Your task to perform on an android device: visit the assistant section in the google photos Image 0: 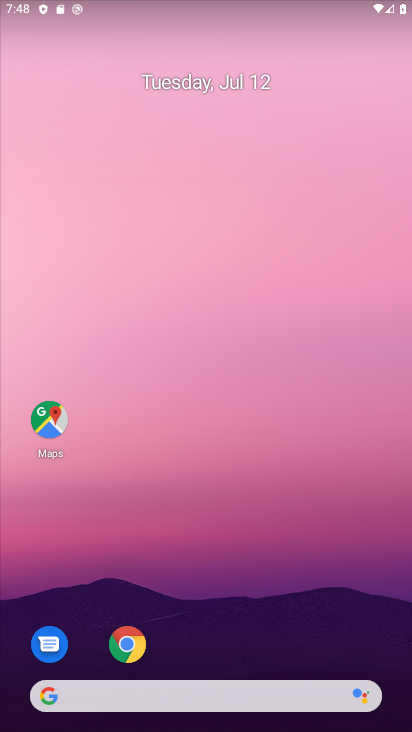
Step 0: press home button
Your task to perform on an android device: visit the assistant section in the google photos Image 1: 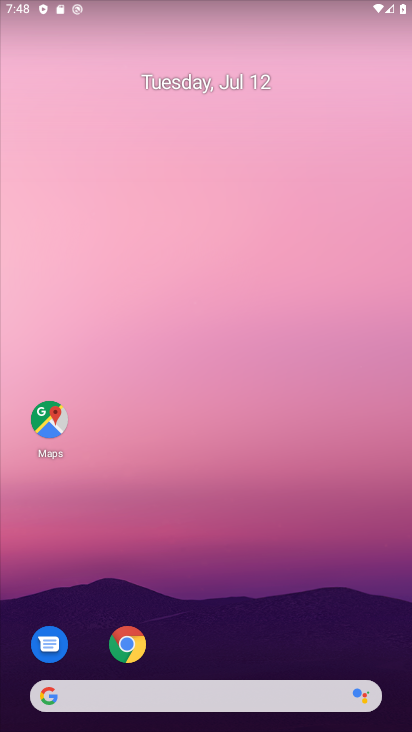
Step 1: drag from (249, 631) to (245, 117)
Your task to perform on an android device: visit the assistant section in the google photos Image 2: 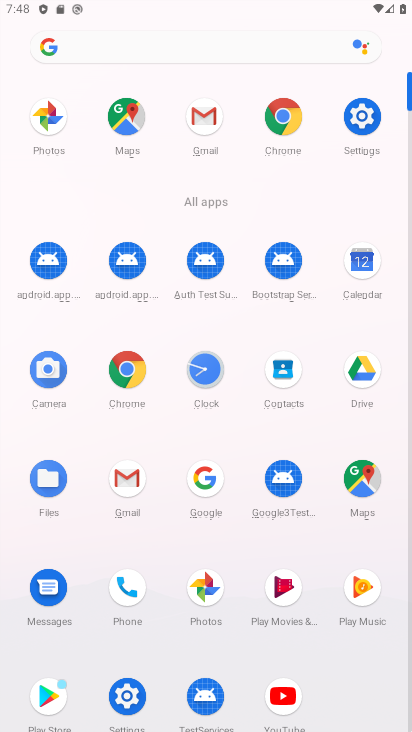
Step 2: click (202, 580)
Your task to perform on an android device: visit the assistant section in the google photos Image 3: 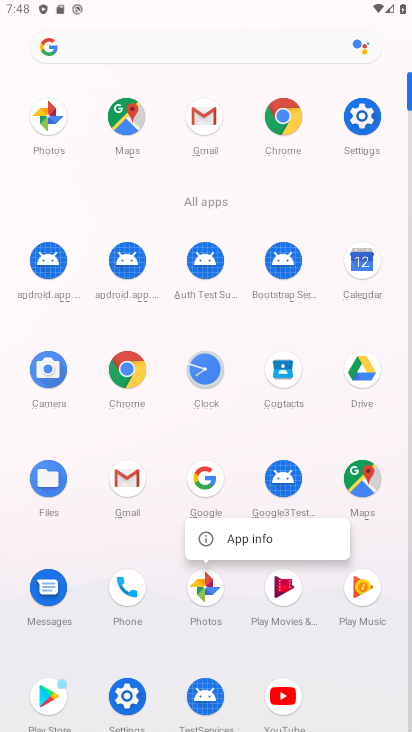
Step 3: click (207, 587)
Your task to perform on an android device: visit the assistant section in the google photos Image 4: 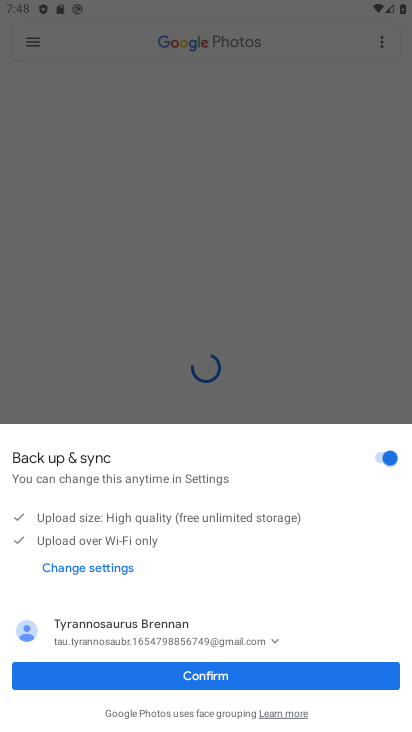
Step 4: click (258, 347)
Your task to perform on an android device: visit the assistant section in the google photos Image 5: 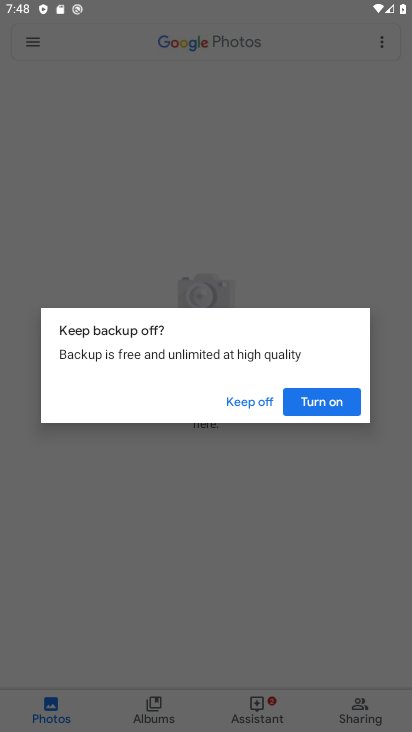
Step 5: click (256, 402)
Your task to perform on an android device: visit the assistant section in the google photos Image 6: 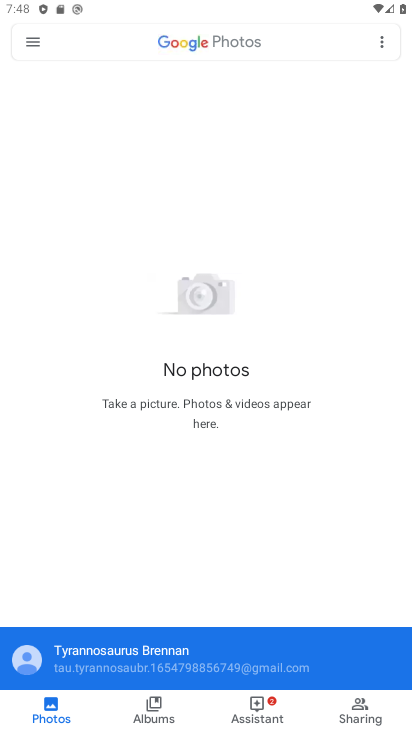
Step 6: click (253, 716)
Your task to perform on an android device: visit the assistant section in the google photos Image 7: 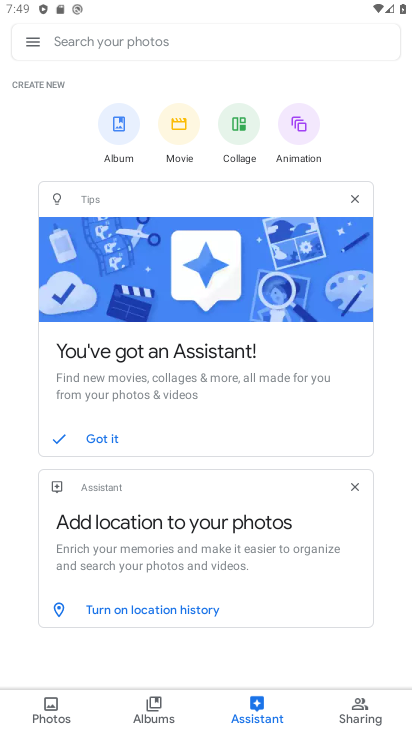
Step 7: task complete